Your task to perform on an android device: turn notification dots on Image 0: 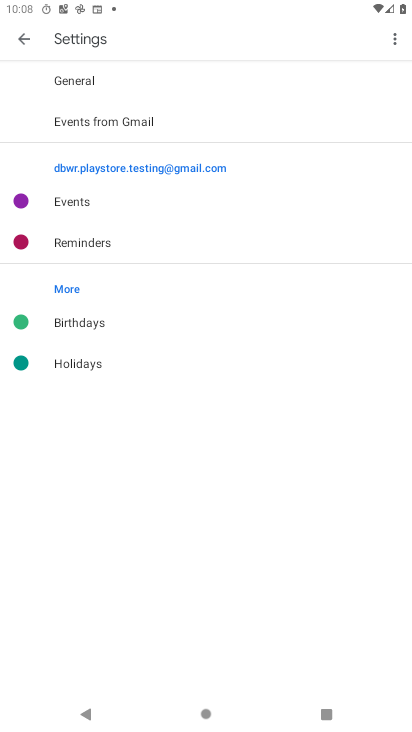
Step 0: press home button
Your task to perform on an android device: turn notification dots on Image 1: 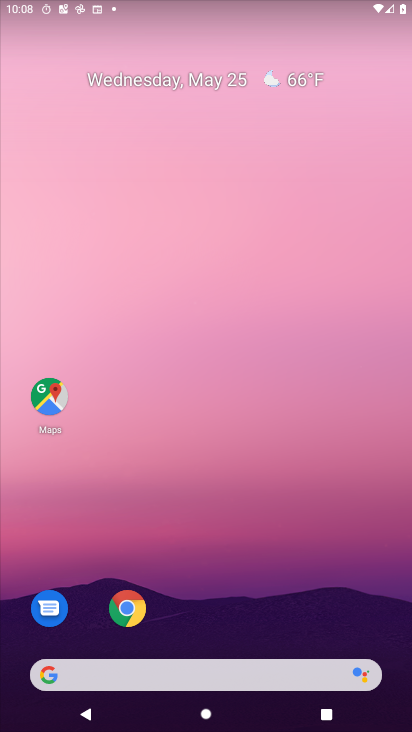
Step 1: drag from (226, 714) to (229, 154)
Your task to perform on an android device: turn notification dots on Image 2: 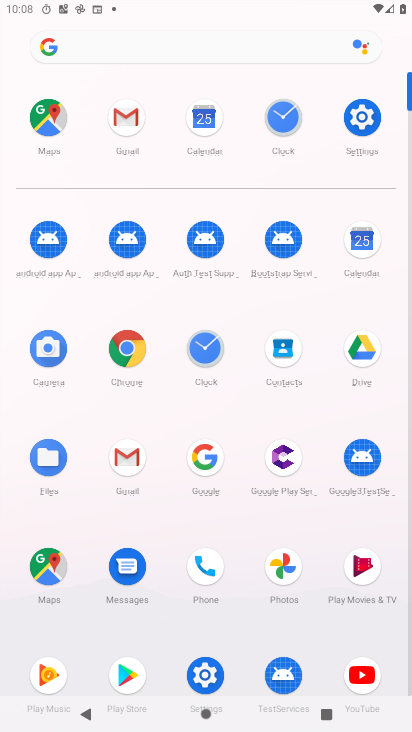
Step 2: click (363, 109)
Your task to perform on an android device: turn notification dots on Image 3: 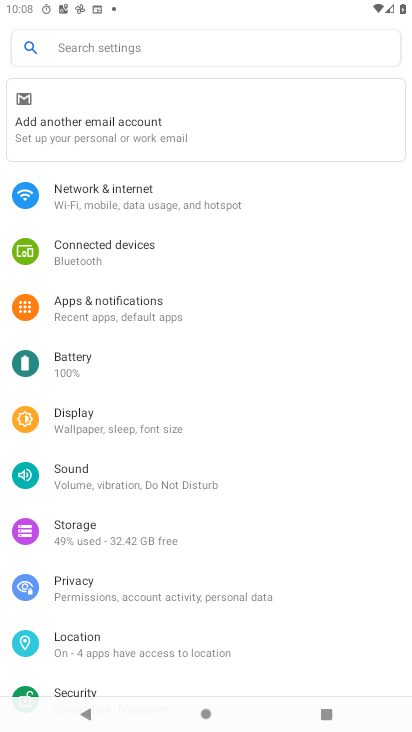
Step 3: click (136, 297)
Your task to perform on an android device: turn notification dots on Image 4: 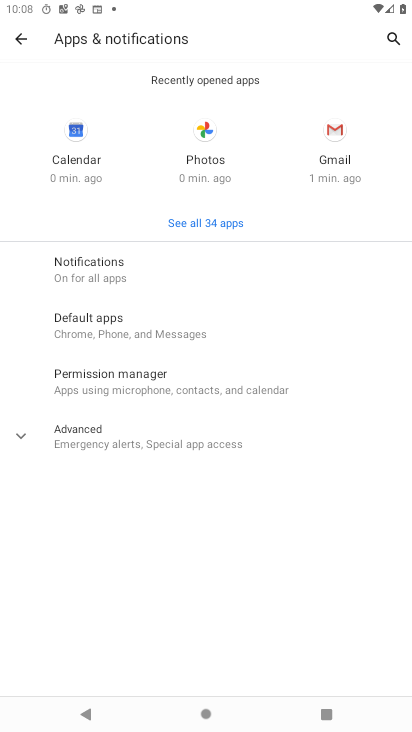
Step 4: click (109, 273)
Your task to perform on an android device: turn notification dots on Image 5: 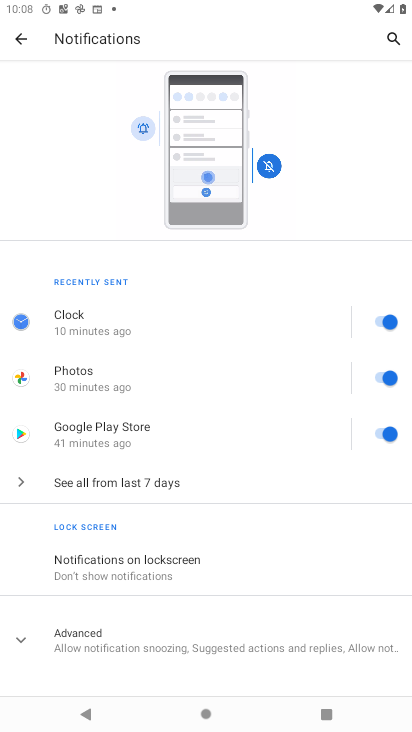
Step 5: drag from (198, 607) to (188, 273)
Your task to perform on an android device: turn notification dots on Image 6: 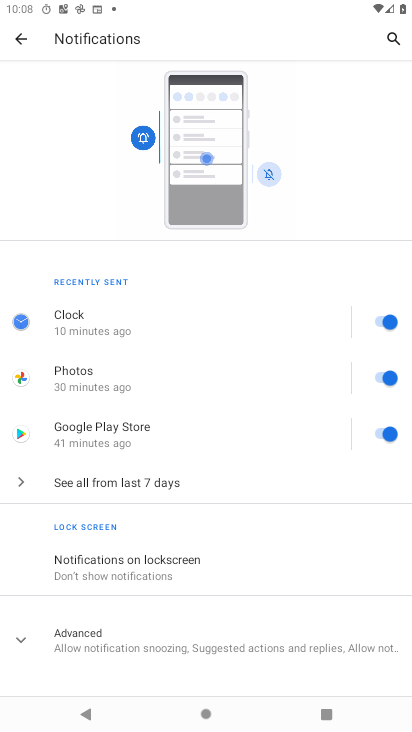
Step 6: click (210, 637)
Your task to perform on an android device: turn notification dots on Image 7: 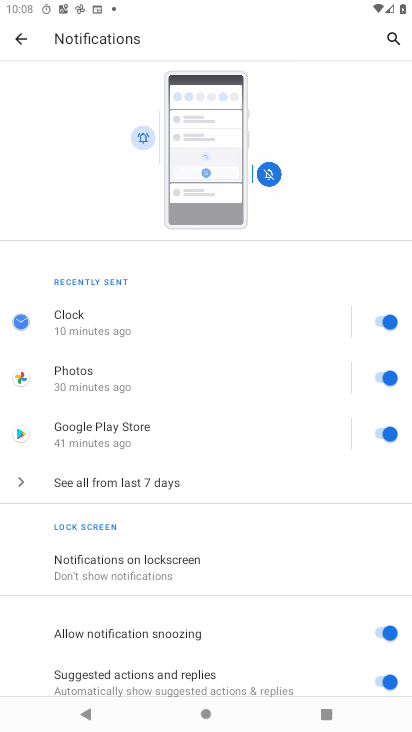
Step 7: drag from (271, 662) to (261, 357)
Your task to perform on an android device: turn notification dots on Image 8: 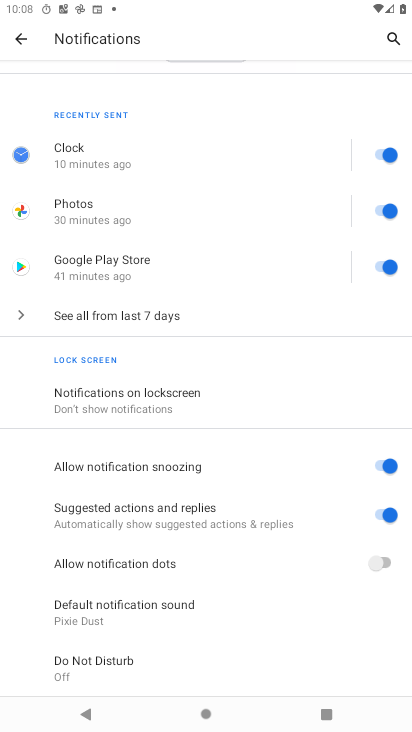
Step 8: click (386, 560)
Your task to perform on an android device: turn notification dots on Image 9: 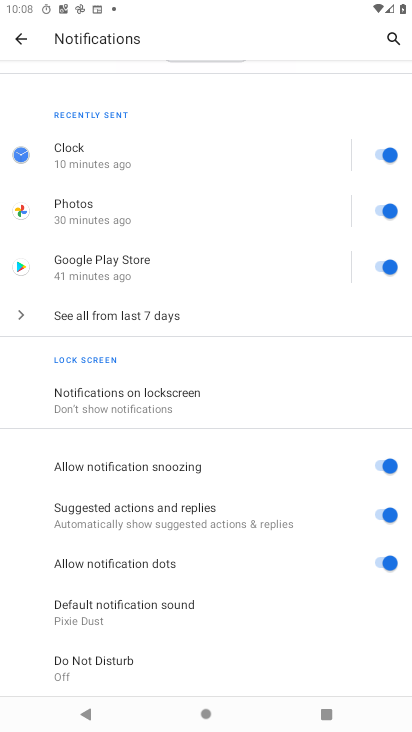
Step 9: task complete